Your task to perform on an android device: open a bookmark in the chrome app Image 0: 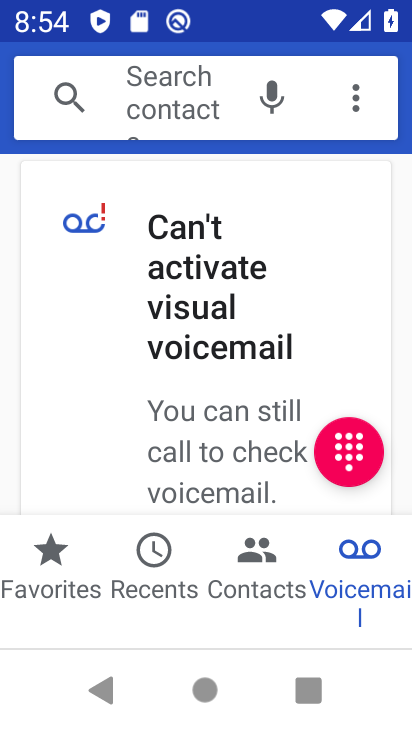
Step 0: press home button
Your task to perform on an android device: open a bookmark in the chrome app Image 1: 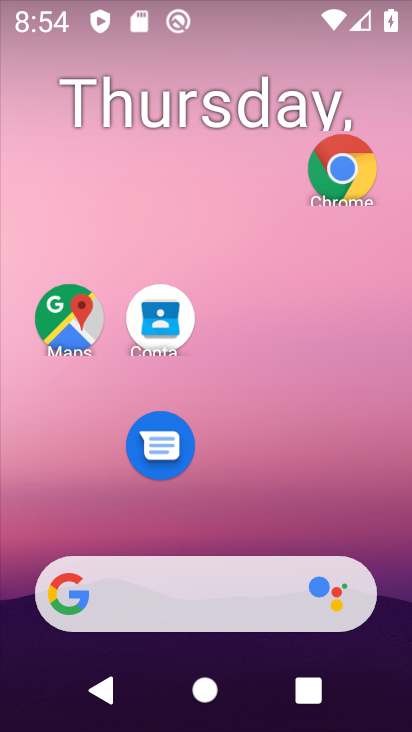
Step 1: drag from (304, 617) to (276, 230)
Your task to perform on an android device: open a bookmark in the chrome app Image 2: 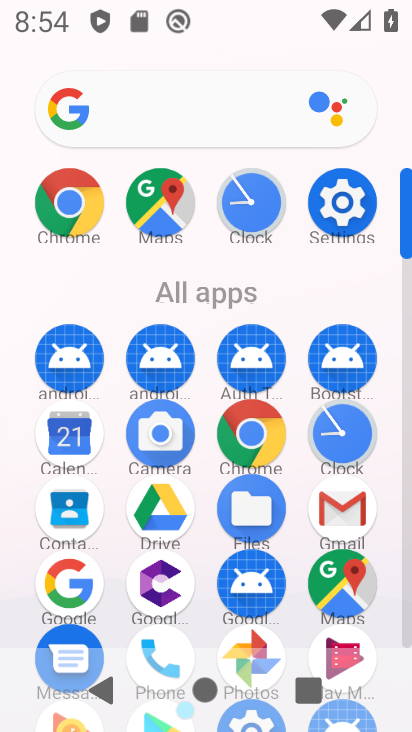
Step 2: click (80, 197)
Your task to perform on an android device: open a bookmark in the chrome app Image 3: 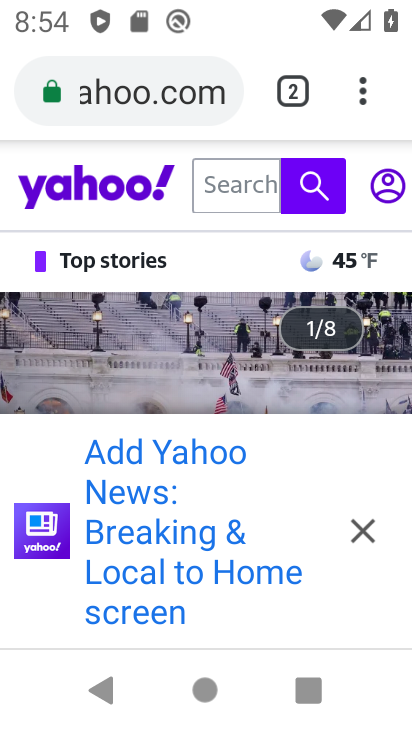
Step 3: click (356, 79)
Your task to perform on an android device: open a bookmark in the chrome app Image 4: 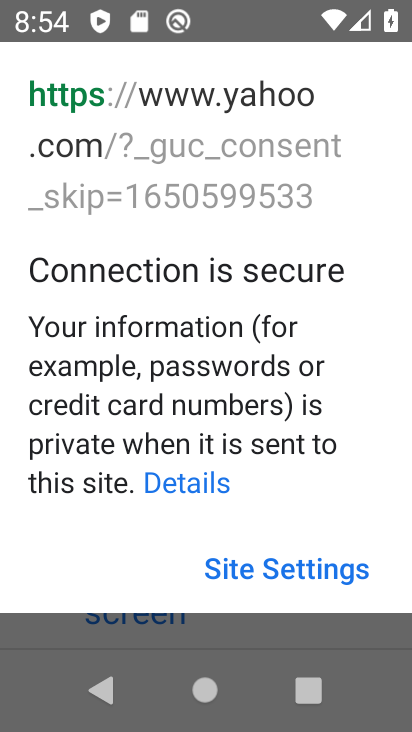
Step 4: press back button
Your task to perform on an android device: open a bookmark in the chrome app Image 5: 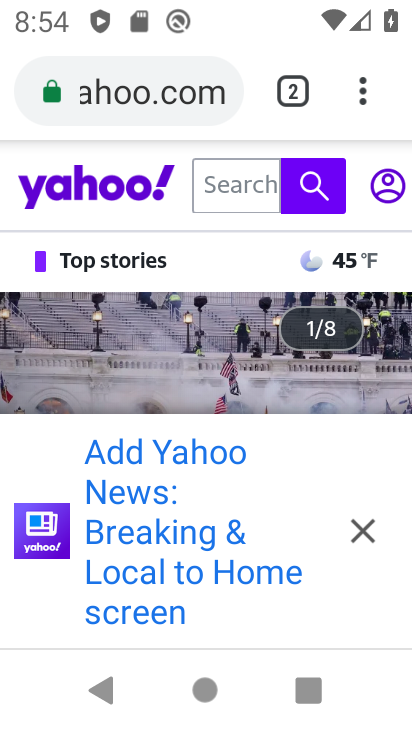
Step 5: click (357, 84)
Your task to perform on an android device: open a bookmark in the chrome app Image 6: 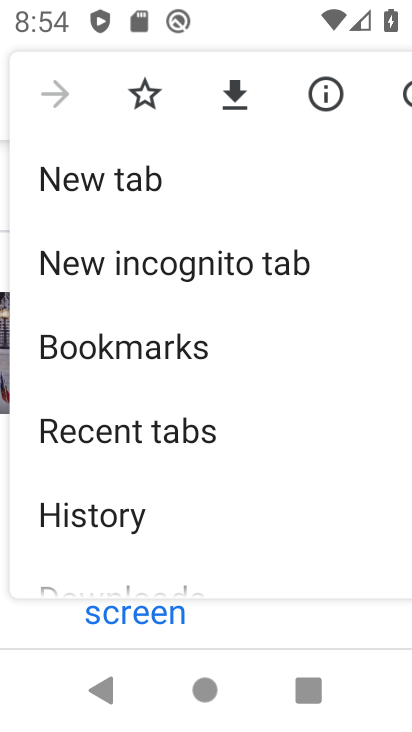
Step 6: click (162, 347)
Your task to perform on an android device: open a bookmark in the chrome app Image 7: 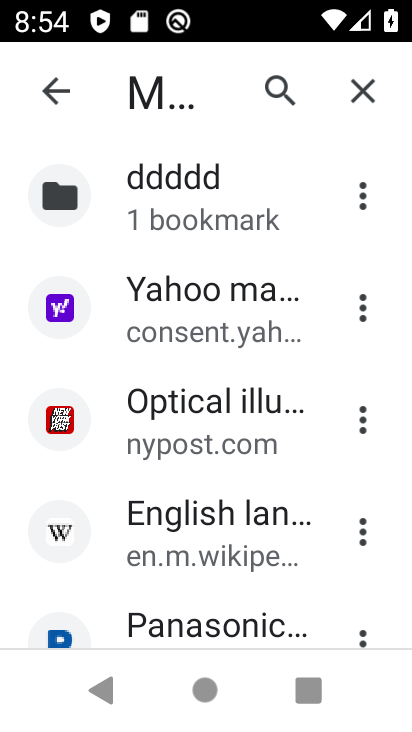
Step 7: click (192, 407)
Your task to perform on an android device: open a bookmark in the chrome app Image 8: 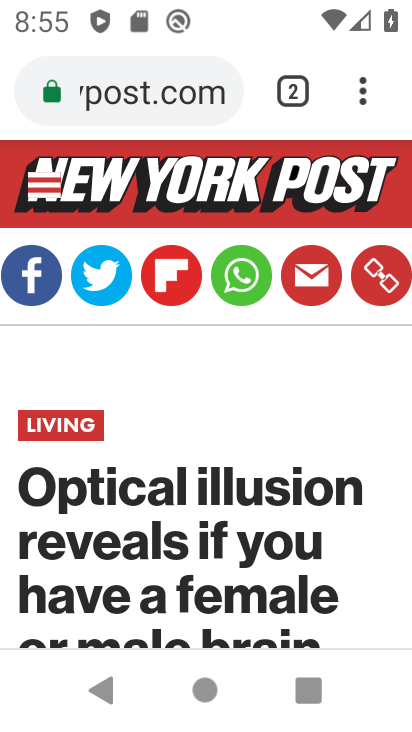
Step 8: task complete